Your task to perform on an android device: open app "Google News" (install if not already installed) Image 0: 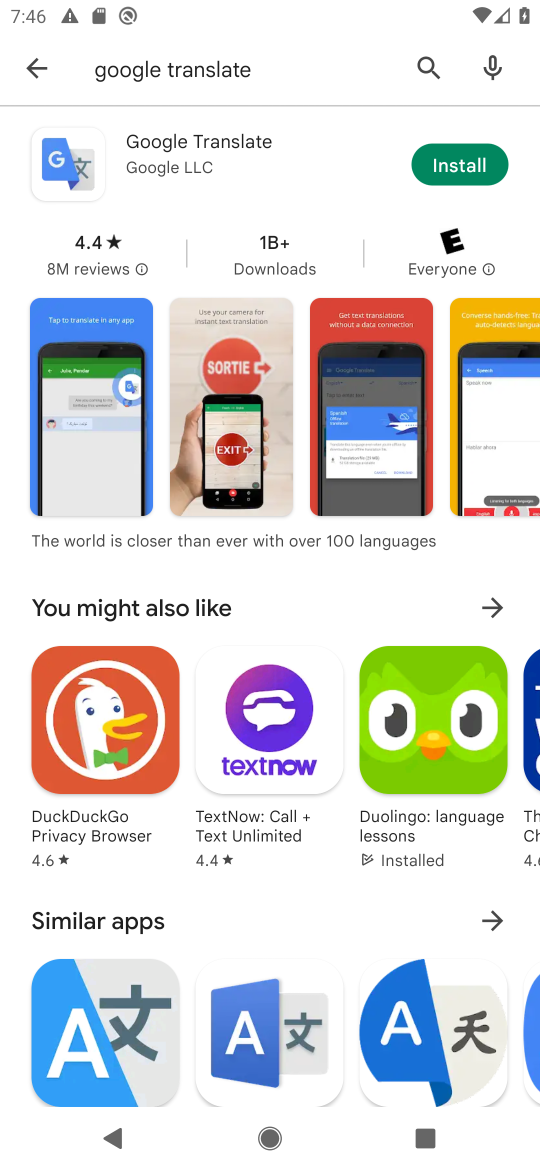
Step 0: click (30, 60)
Your task to perform on an android device: open app "Google News" (install if not already installed) Image 1: 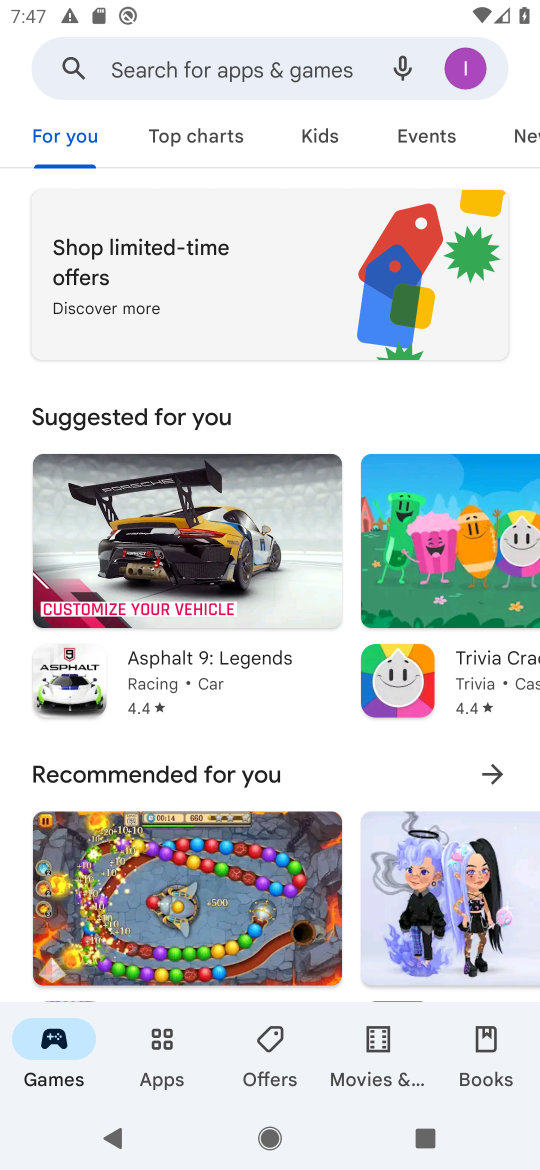
Step 1: type "Google News"
Your task to perform on an android device: open app "Google News" (install if not already installed) Image 2: 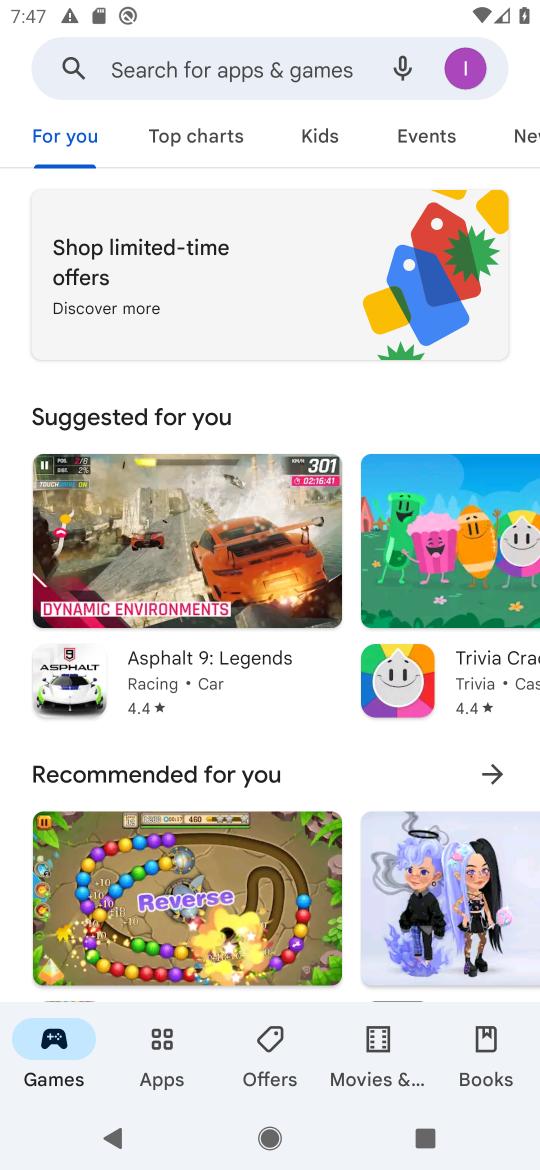
Step 2: type "Google News"
Your task to perform on an android device: open app "Google News" (install if not already installed) Image 3: 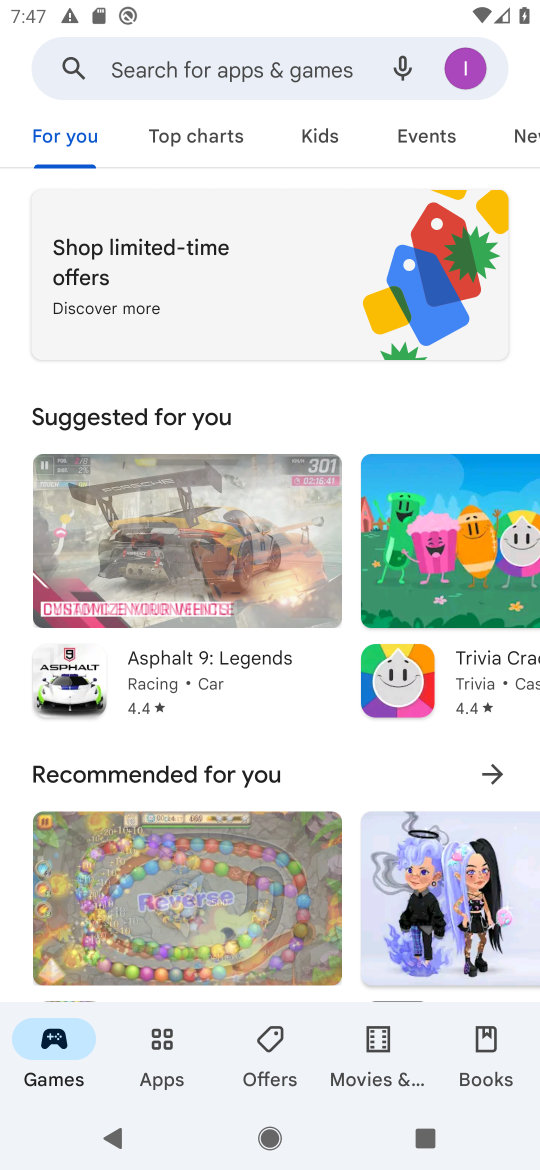
Step 3: click (156, 72)
Your task to perform on an android device: open app "Google News" (install if not already installed) Image 4: 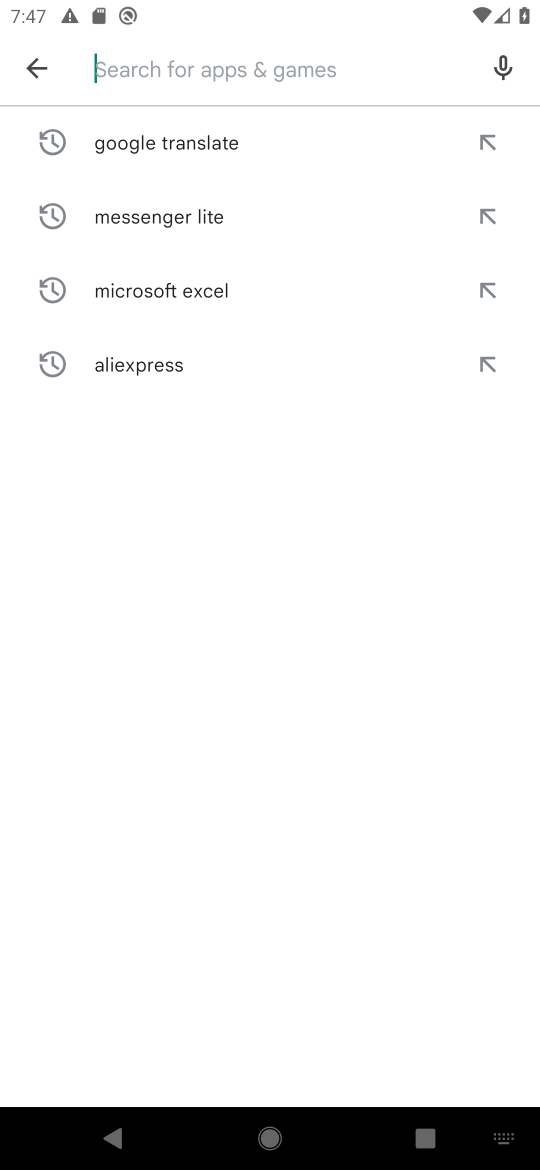
Step 4: click (125, 65)
Your task to perform on an android device: open app "Google News" (install if not already installed) Image 5: 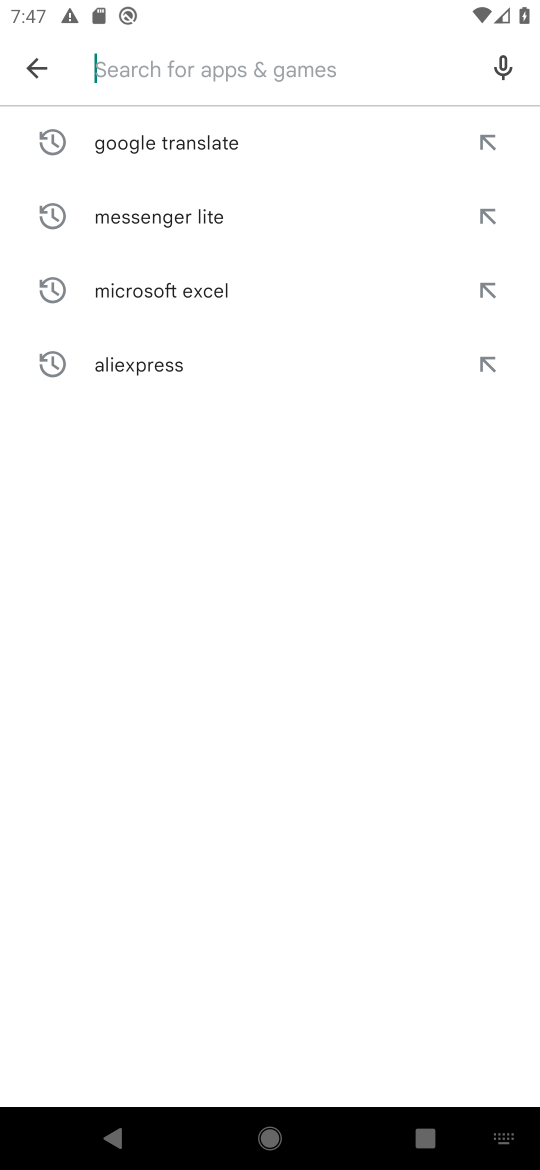
Step 5: type "Google News"
Your task to perform on an android device: open app "Google News" (install if not already installed) Image 6: 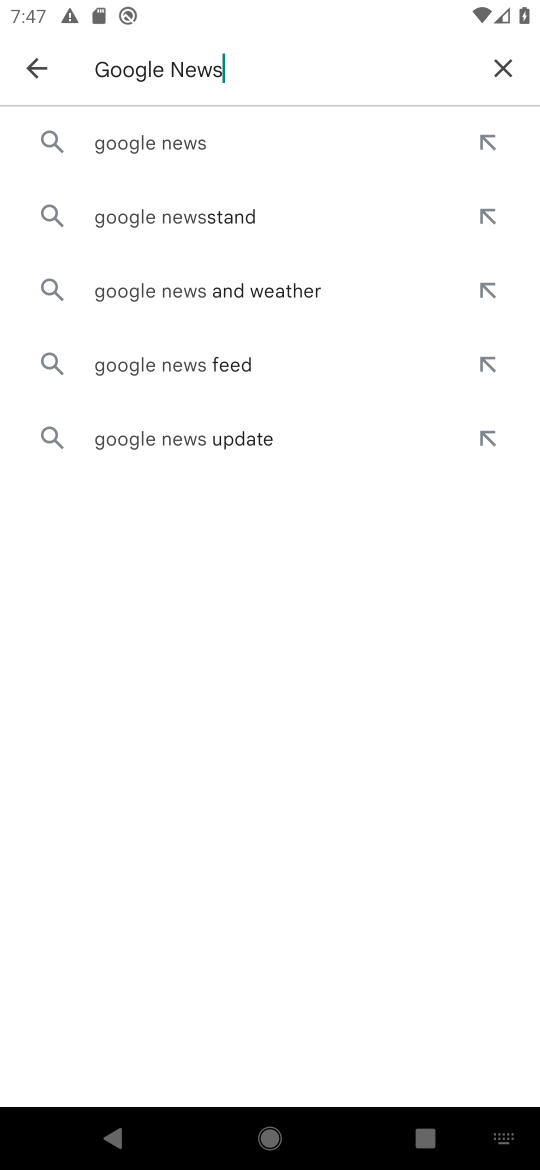
Step 6: click (178, 136)
Your task to perform on an android device: open app "Google News" (install if not already installed) Image 7: 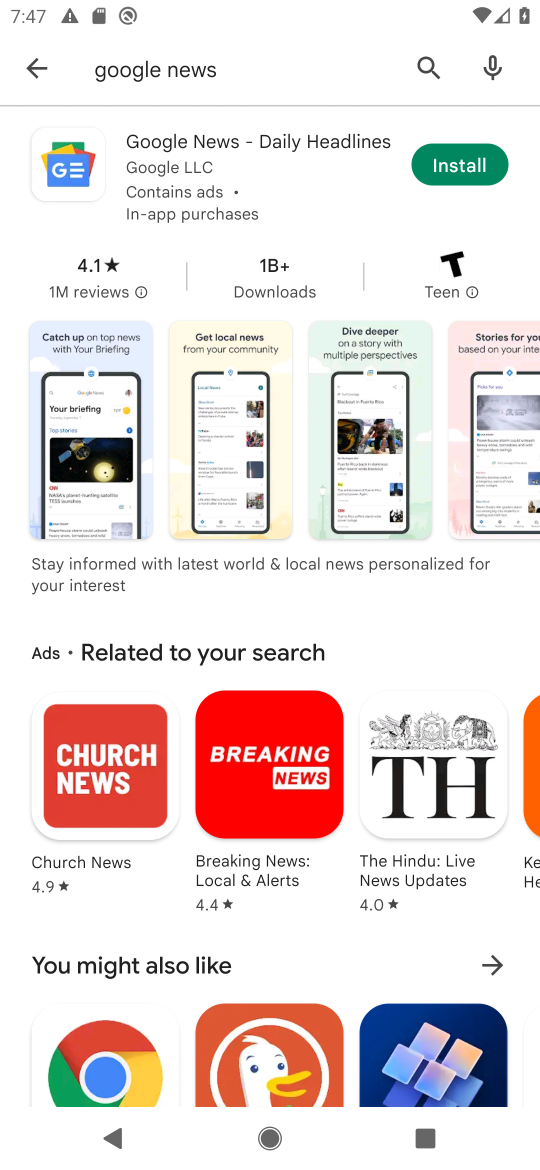
Step 7: click (468, 166)
Your task to perform on an android device: open app "Google News" (install if not already installed) Image 8: 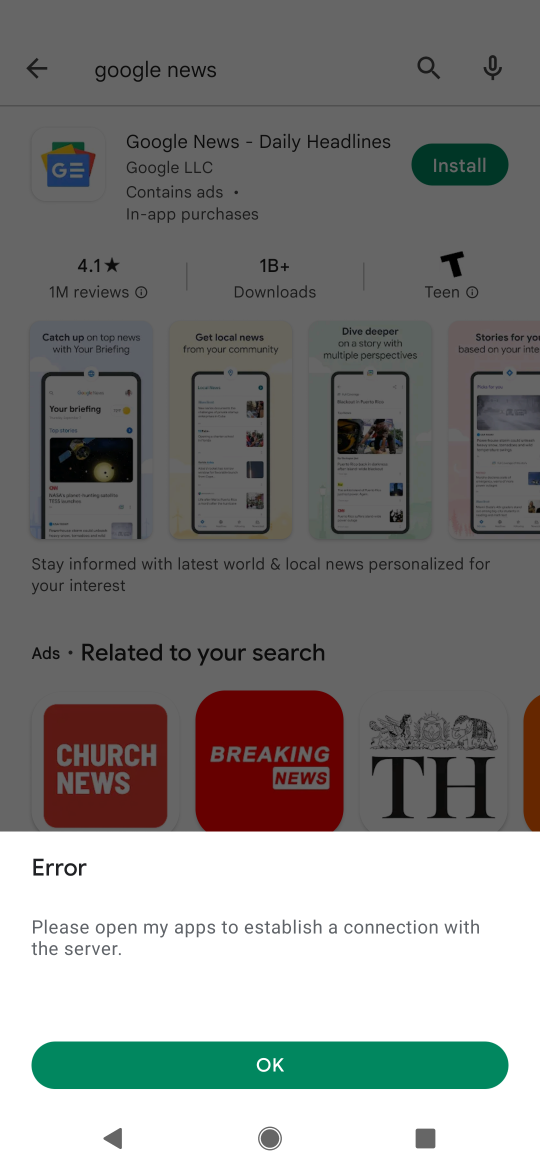
Step 8: click (285, 1065)
Your task to perform on an android device: open app "Google News" (install if not already installed) Image 9: 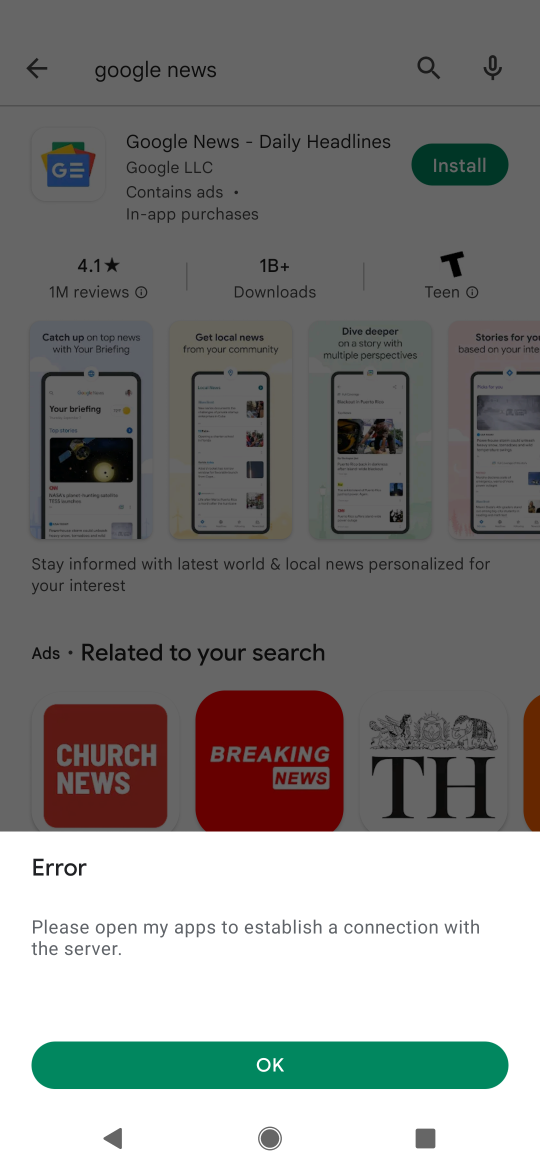
Step 9: task complete